Your task to perform on an android device: Clear all items from cart on ebay. Search for "logitech g933" on ebay, select the first entry, and add it to the cart. Image 0: 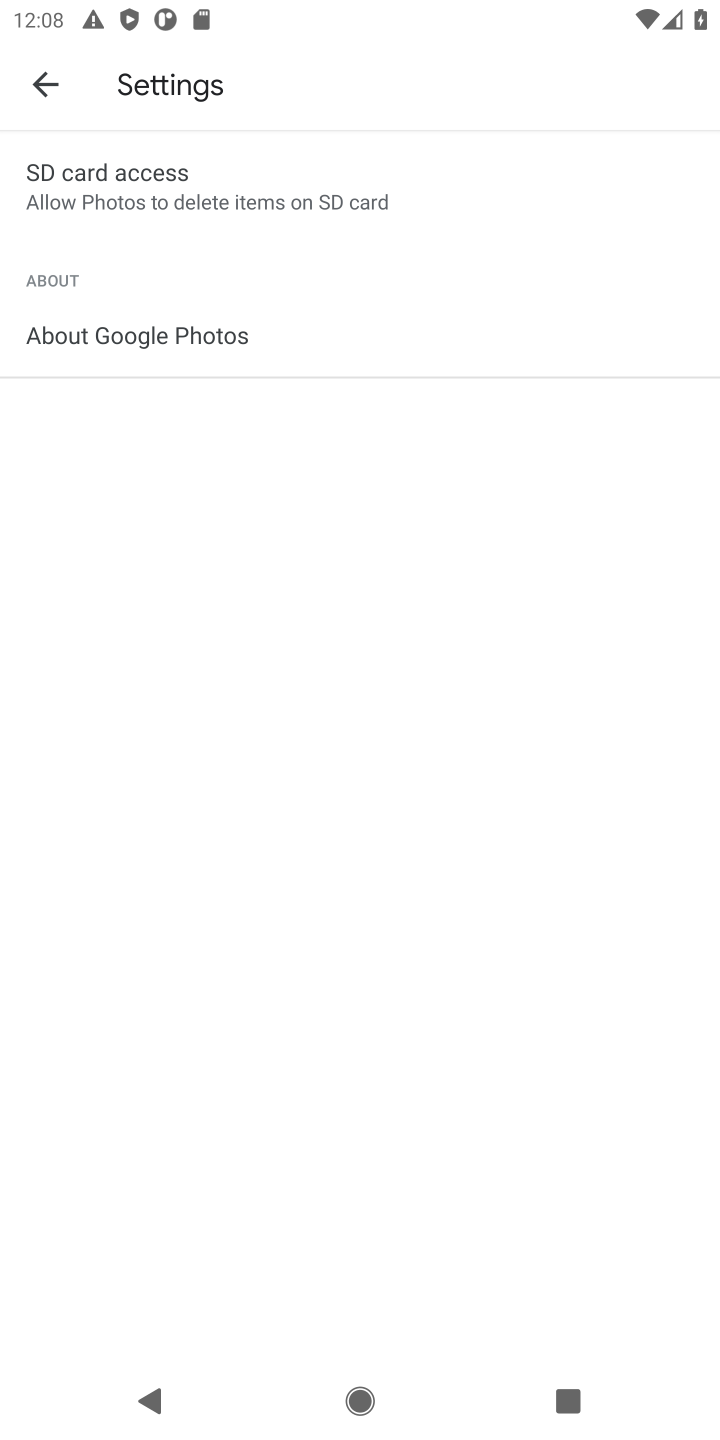
Step 0: press home button
Your task to perform on an android device: Clear all items from cart on ebay. Search for "logitech g933" on ebay, select the first entry, and add it to the cart. Image 1: 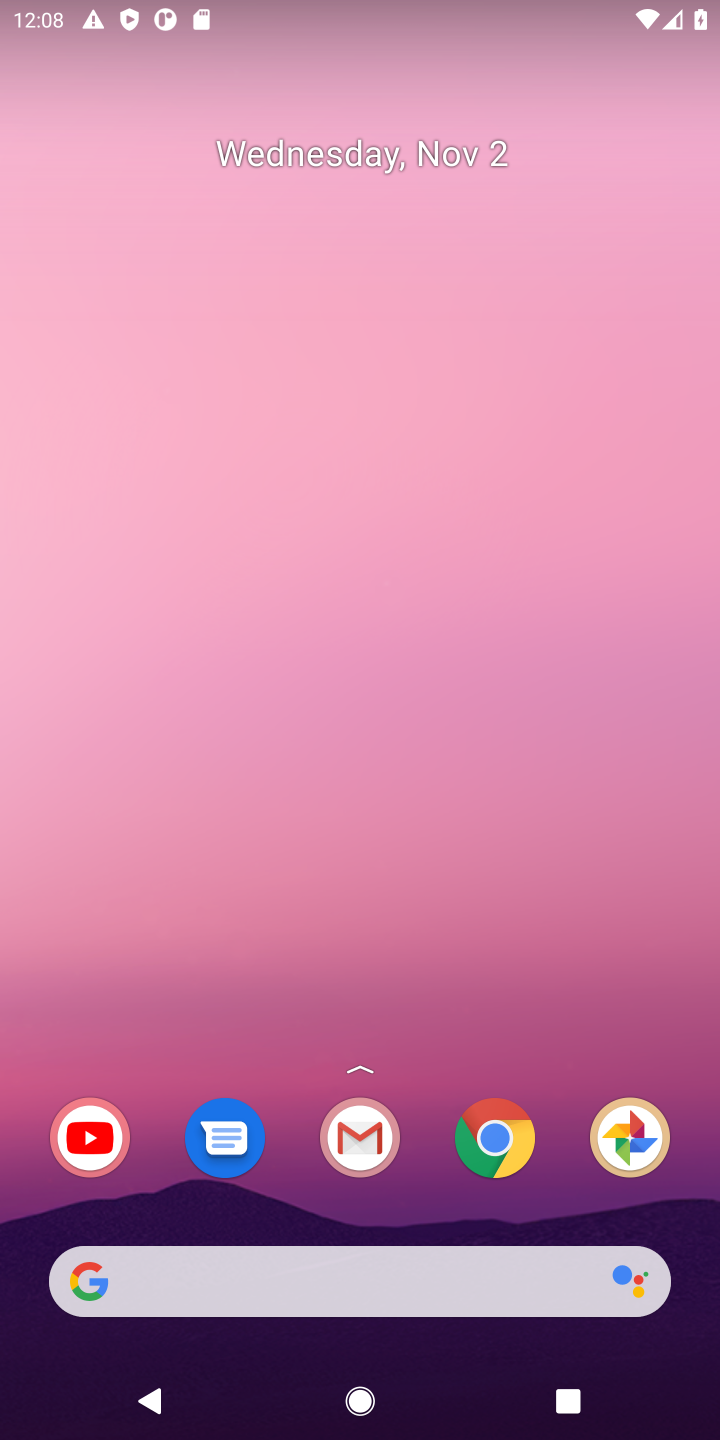
Step 1: click (196, 1286)
Your task to perform on an android device: Clear all items from cart on ebay. Search for "logitech g933" on ebay, select the first entry, and add it to the cart. Image 2: 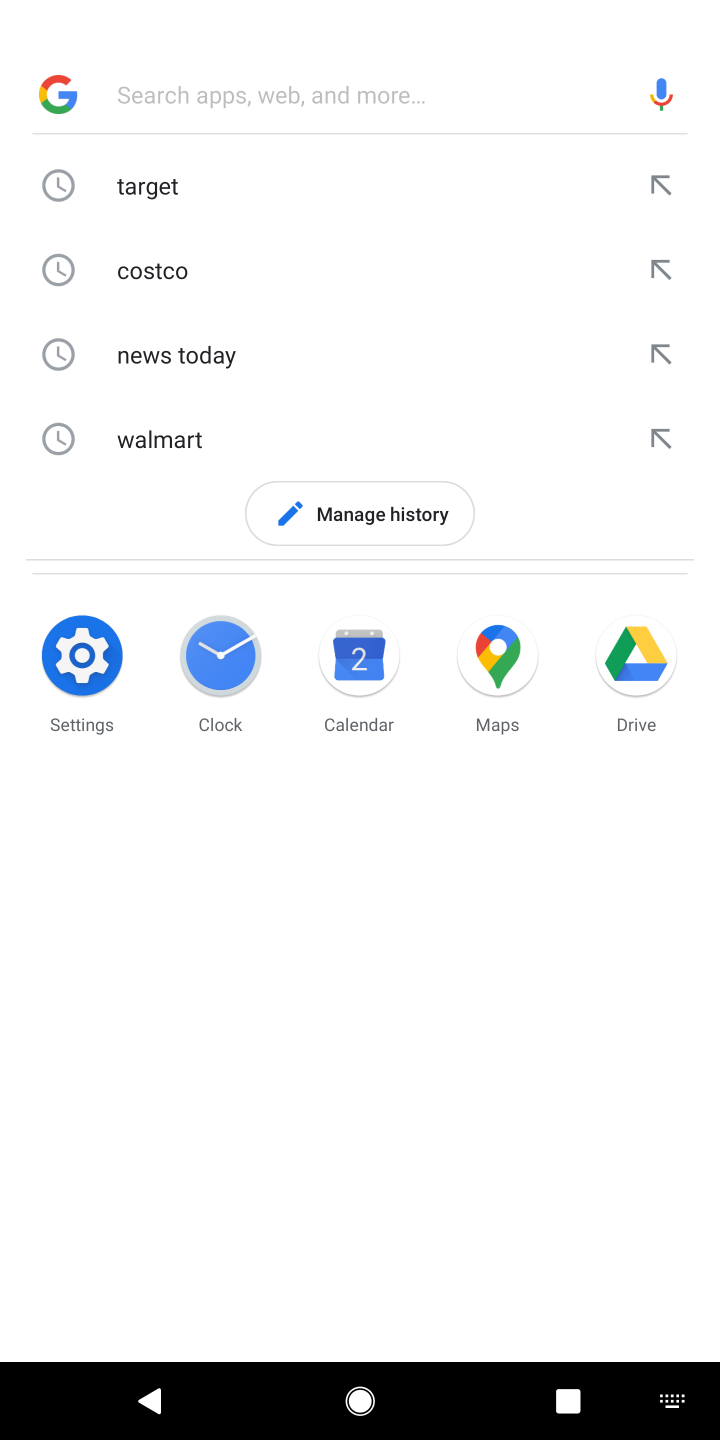
Step 2: type "ebay"
Your task to perform on an android device: Clear all items from cart on ebay. Search for "logitech g933" on ebay, select the first entry, and add it to the cart. Image 3: 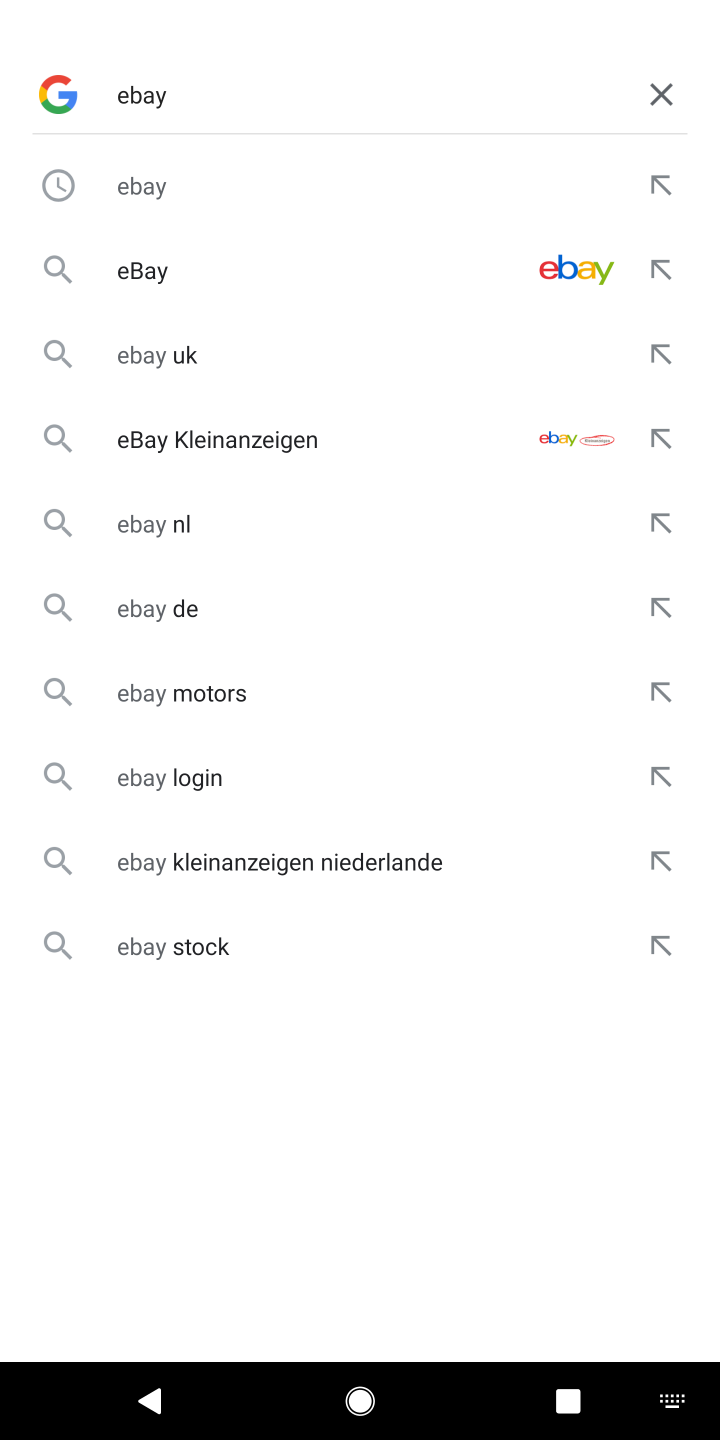
Step 3: press enter
Your task to perform on an android device: Clear all items from cart on ebay. Search for "logitech g933" on ebay, select the first entry, and add it to the cart. Image 4: 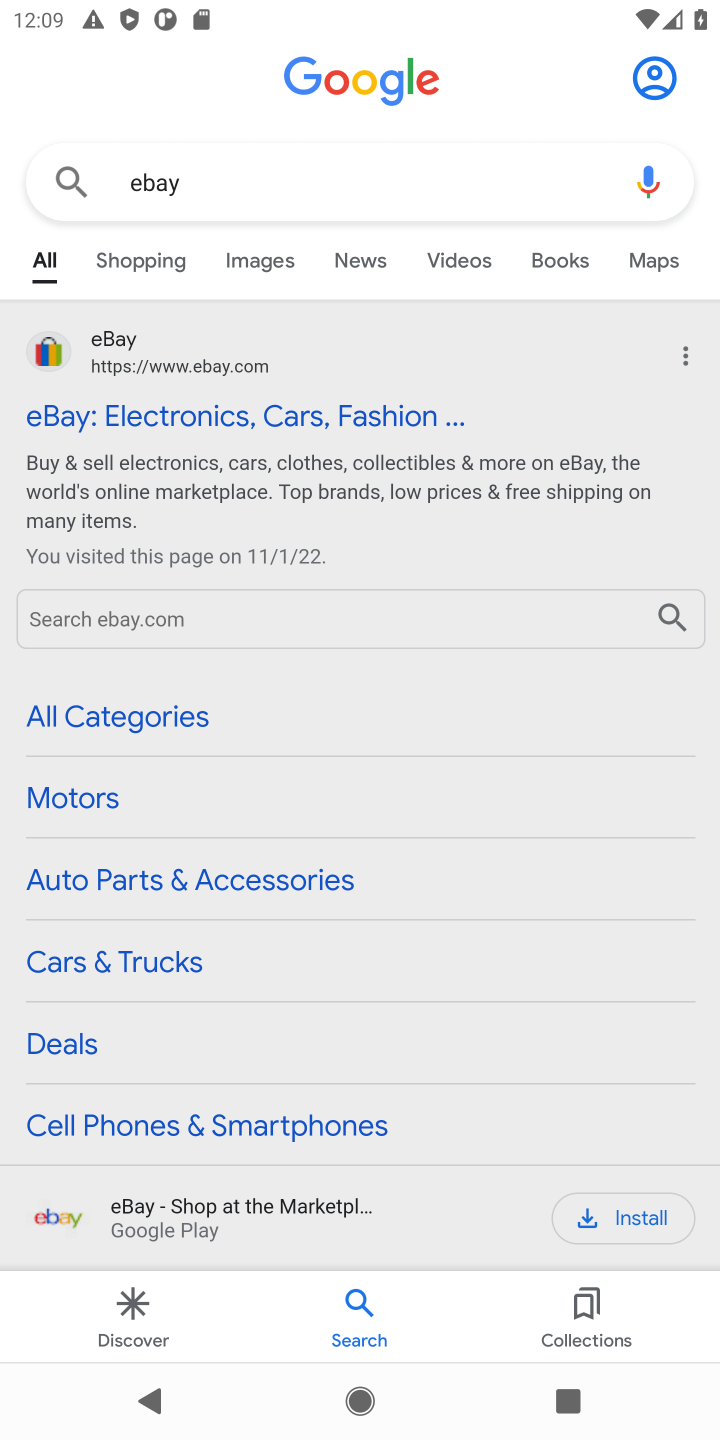
Step 4: click (167, 422)
Your task to perform on an android device: Clear all items from cart on ebay. Search for "logitech g933" on ebay, select the first entry, and add it to the cart. Image 5: 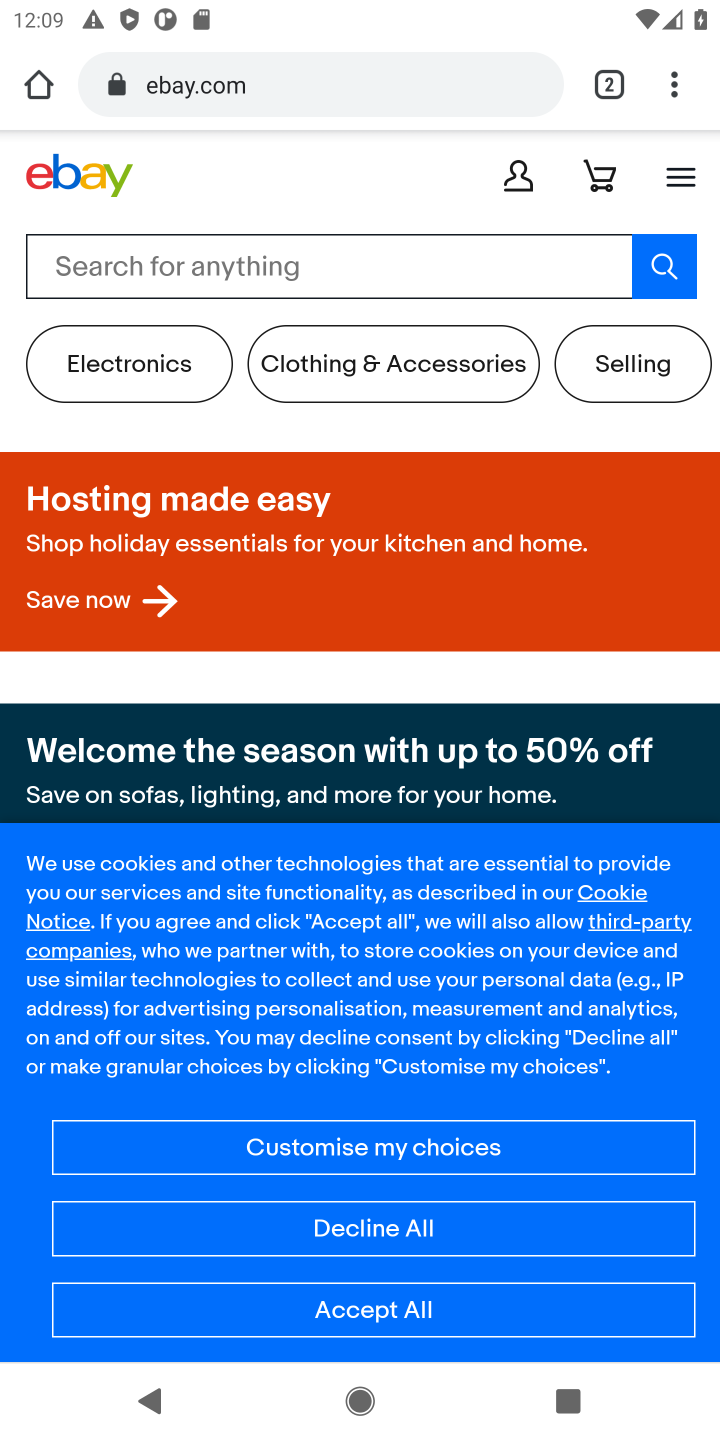
Step 5: click (606, 183)
Your task to perform on an android device: Clear all items from cart on ebay. Search for "logitech g933" on ebay, select the first entry, and add it to the cart. Image 6: 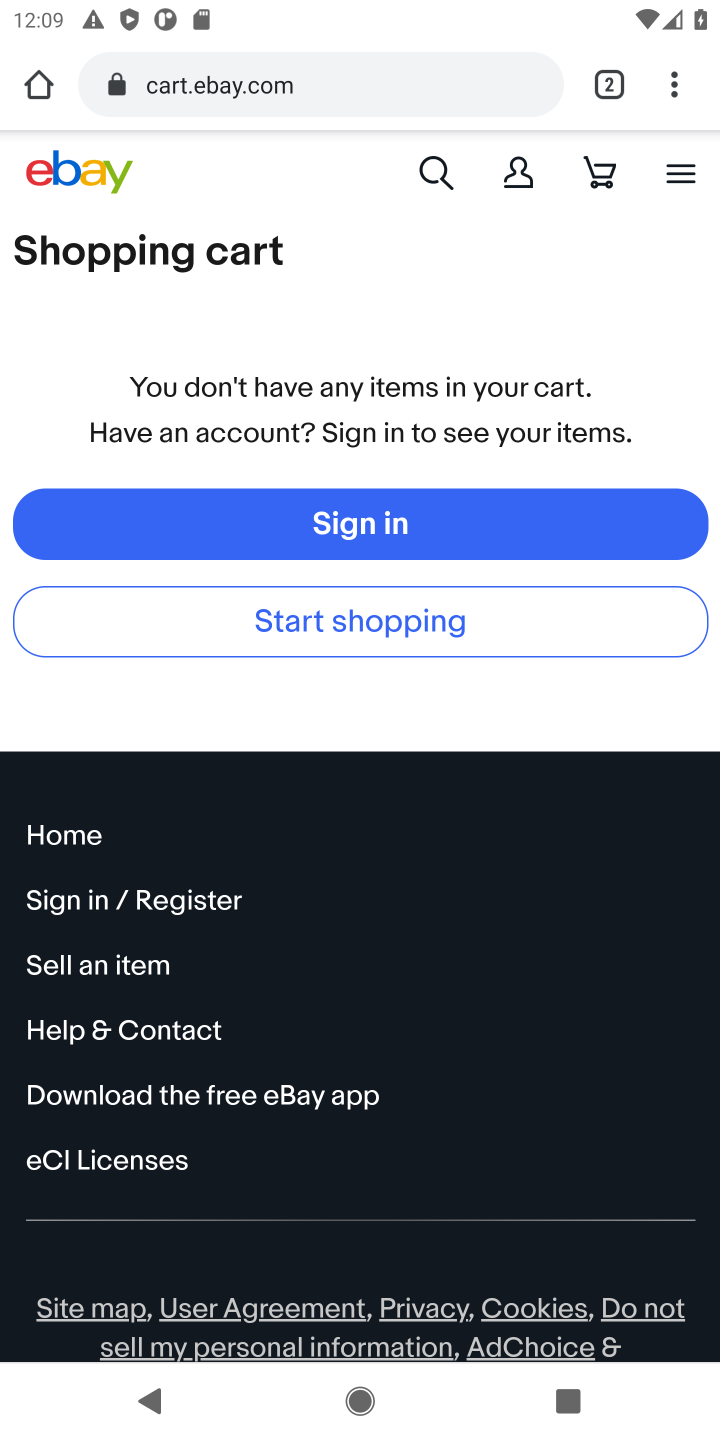
Step 6: click (426, 169)
Your task to perform on an android device: Clear all items from cart on ebay. Search for "logitech g933" on ebay, select the first entry, and add it to the cart. Image 7: 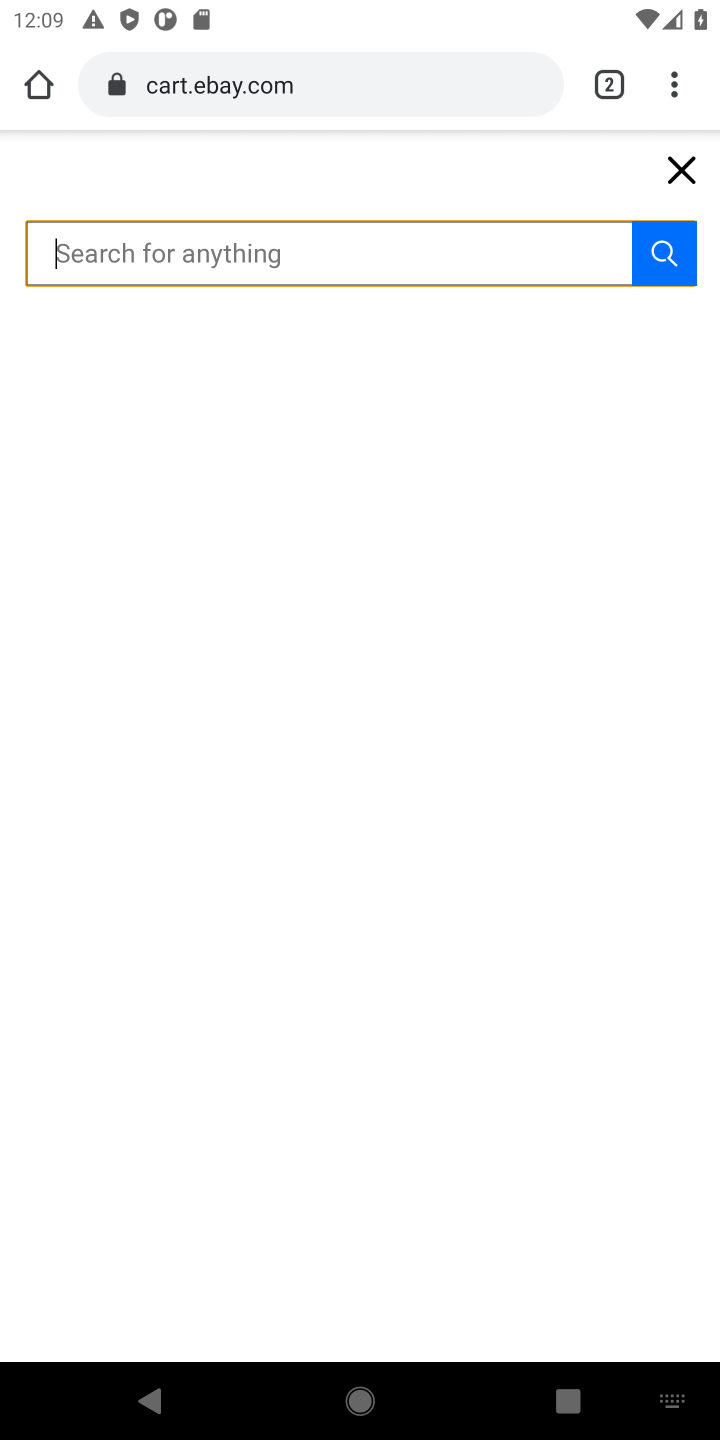
Step 7: type "logitech g933"
Your task to perform on an android device: Clear all items from cart on ebay. Search for "logitech g933" on ebay, select the first entry, and add it to the cart. Image 8: 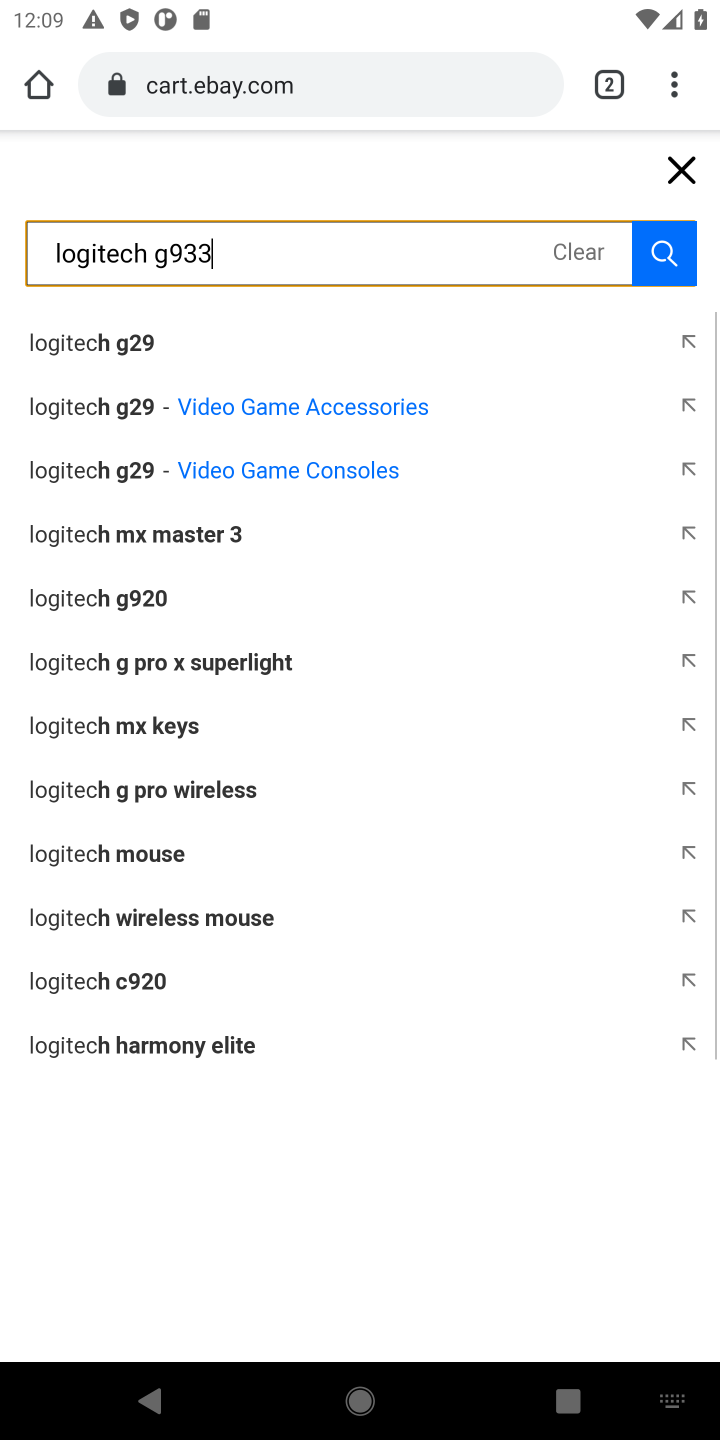
Step 8: press enter
Your task to perform on an android device: Clear all items from cart on ebay. Search for "logitech g933" on ebay, select the first entry, and add it to the cart. Image 9: 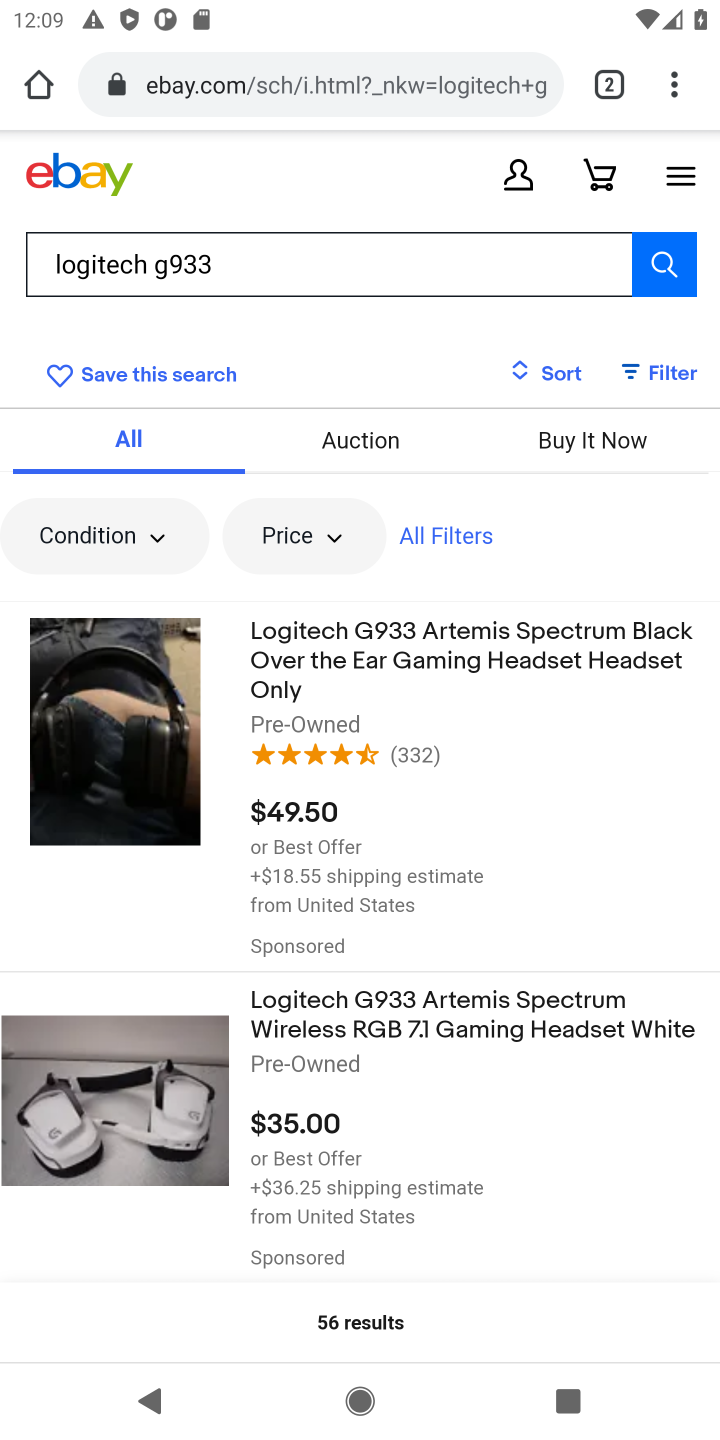
Step 9: click (427, 634)
Your task to perform on an android device: Clear all items from cart on ebay. Search for "logitech g933" on ebay, select the first entry, and add it to the cart. Image 10: 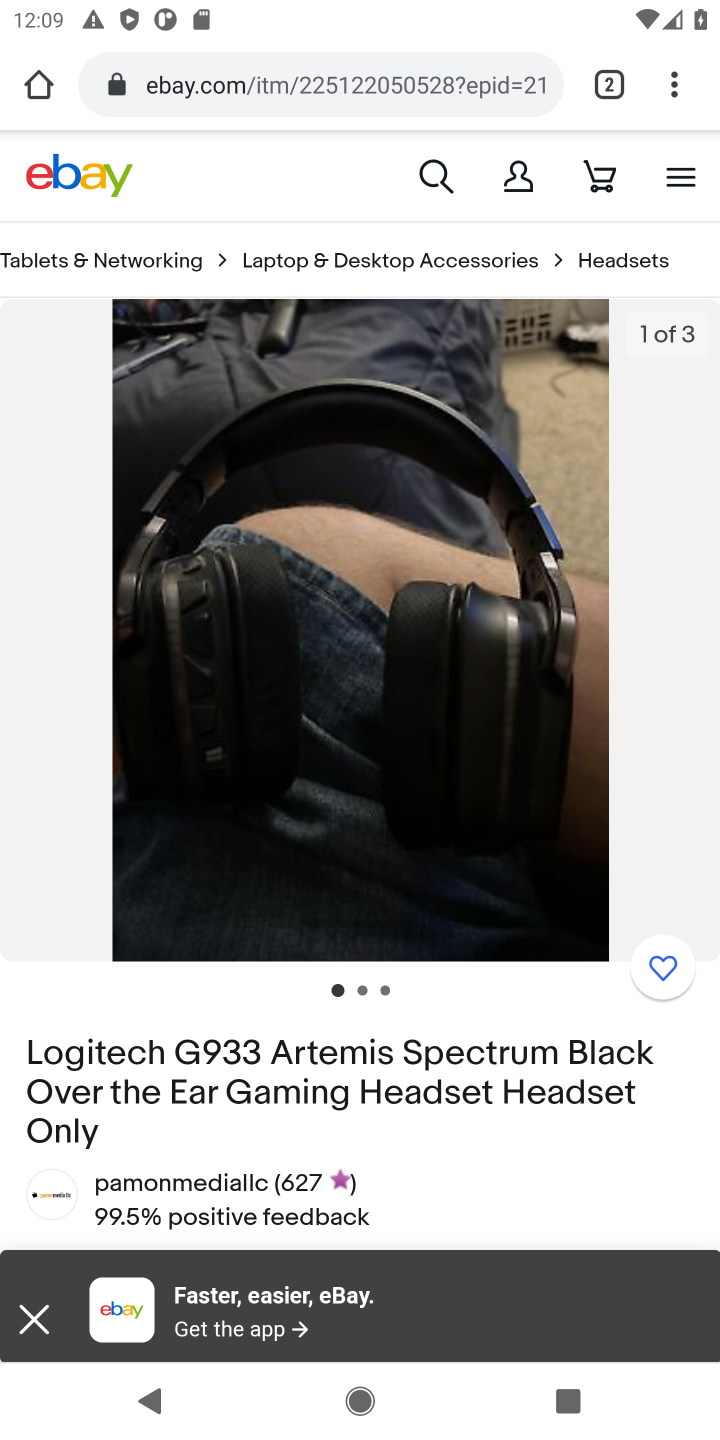
Step 10: drag from (272, 1111) to (506, 1354)
Your task to perform on an android device: Clear all items from cart on ebay. Search for "logitech g933" on ebay, select the first entry, and add it to the cart. Image 11: 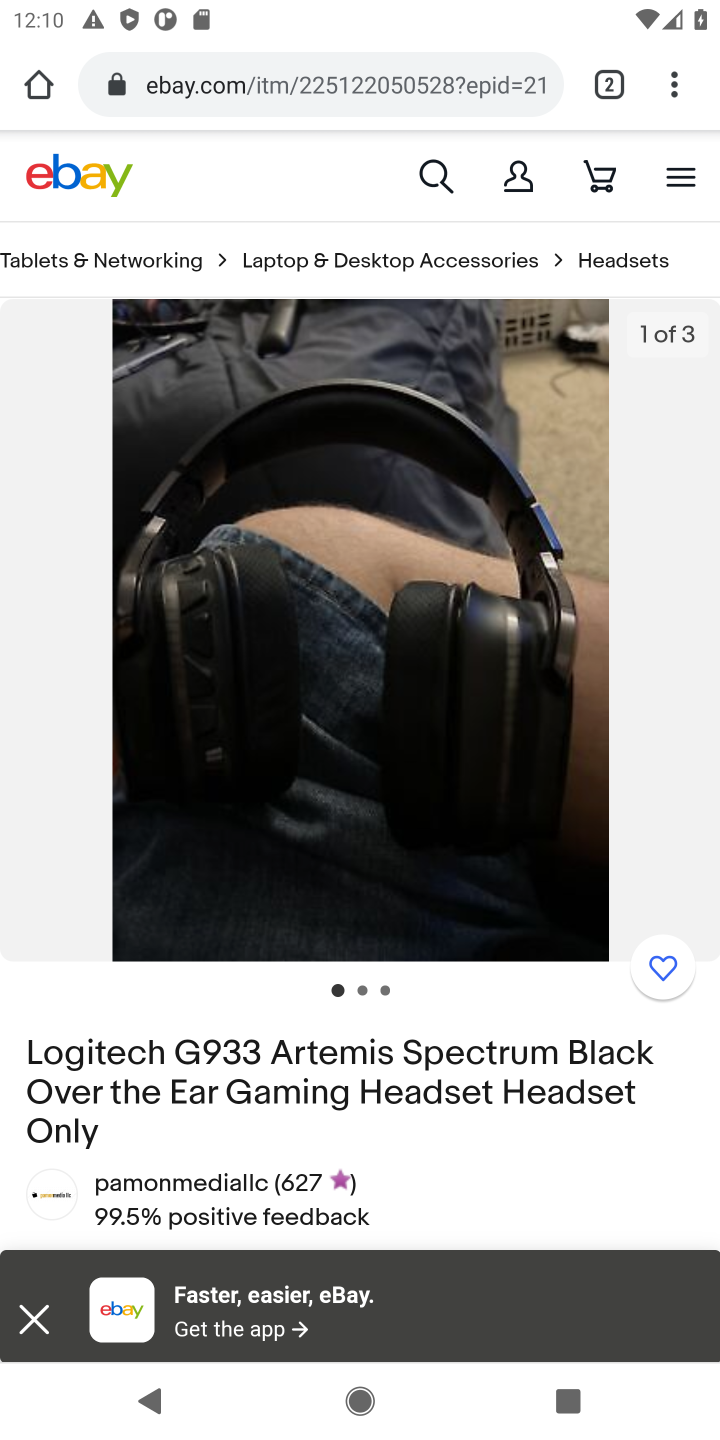
Step 11: drag from (511, 1025) to (500, 436)
Your task to perform on an android device: Clear all items from cart on ebay. Search for "logitech g933" on ebay, select the first entry, and add it to the cart. Image 12: 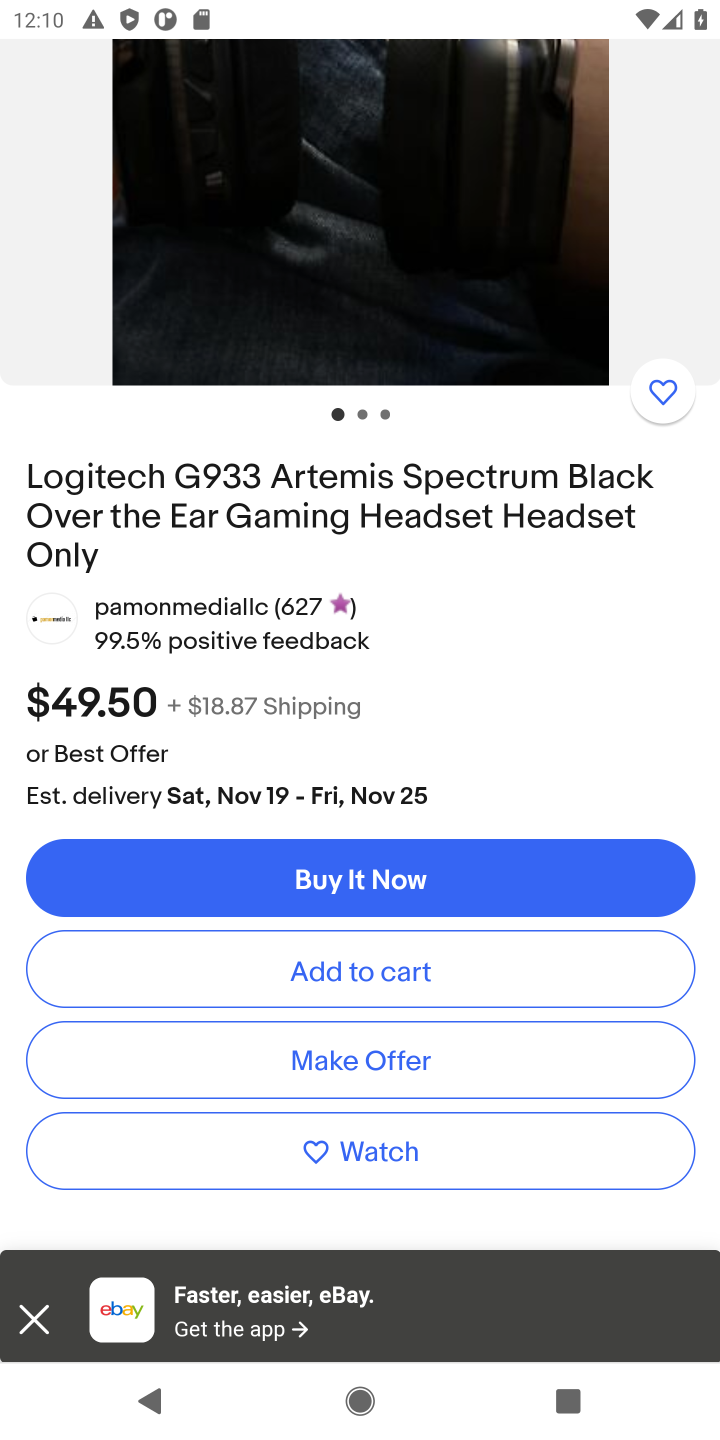
Step 12: click (335, 972)
Your task to perform on an android device: Clear all items from cart on ebay. Search for "logitech g933" on ebay, select the first entry, and add it to the cart. Image 13: 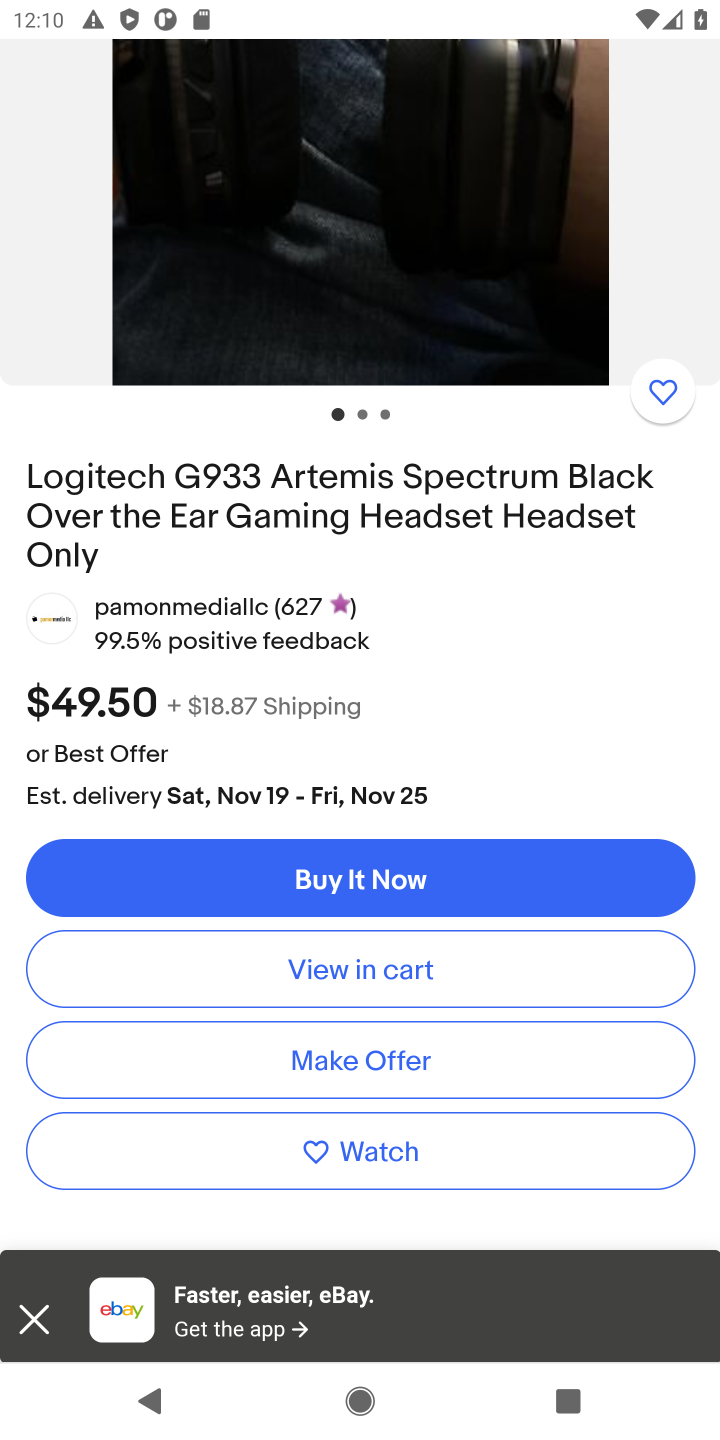
Step 13: task complete